Your task to perform on an android device: turn on notifications settings in the gmail app Image 0: 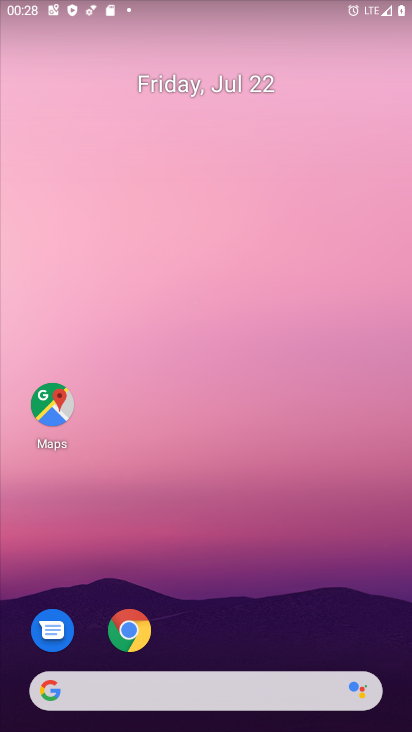
Step 0: drag from (217, 631) to (89, 3)
Your task to perform on an android device: turn on notifications settings in the gmail app Image 1: 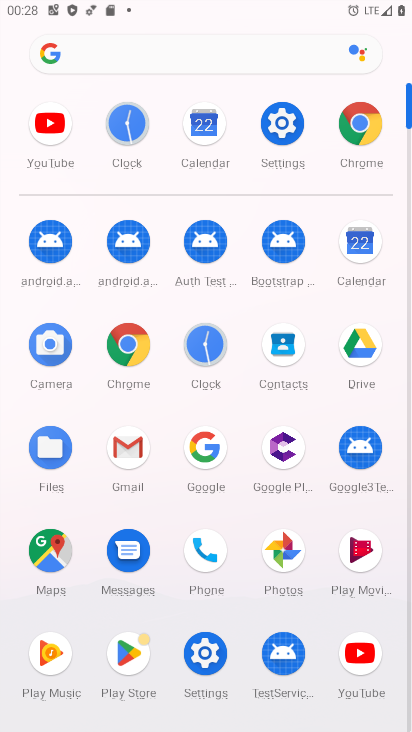
Step 1: click (125, 440)
Your task to perform on an android device: turn on notifications settings in the gmail app Image 2: 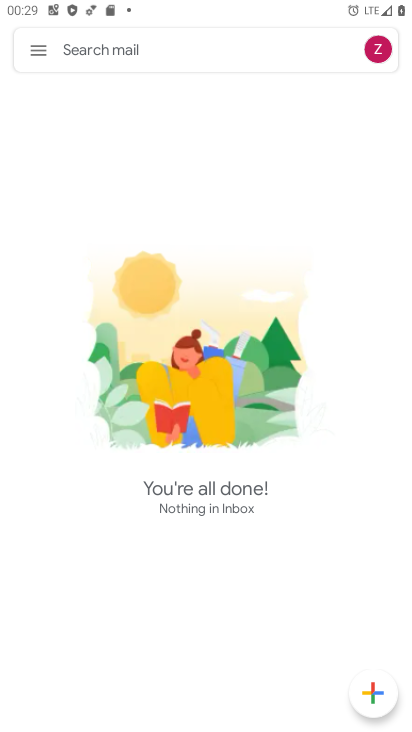
Step 2: click (190, 50)
Your task to perform on an android device: turn on notifications settings in the gmail app Image 3: 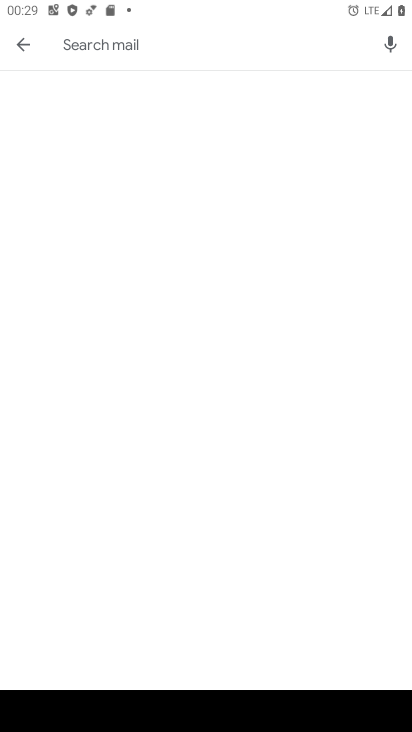
Step 3: click (25, 43)
Your task to perform on an android device: turn on notifications settings in the gmail app Image 4: 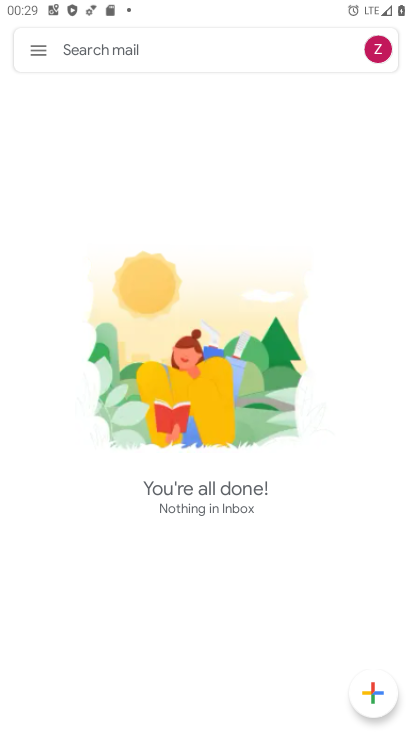
Step 4: click (25, 43)
Your task to perform on an android device: turn on notifications settings in the gmail app Image 5: 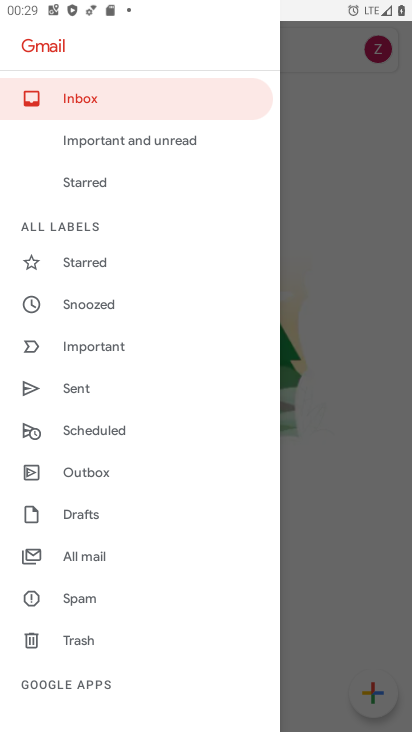
Step 5: drag from (100, 714) to (88, 375)
Your task to perform on an android device: turn on notifications settings in the gmail app Image 6: 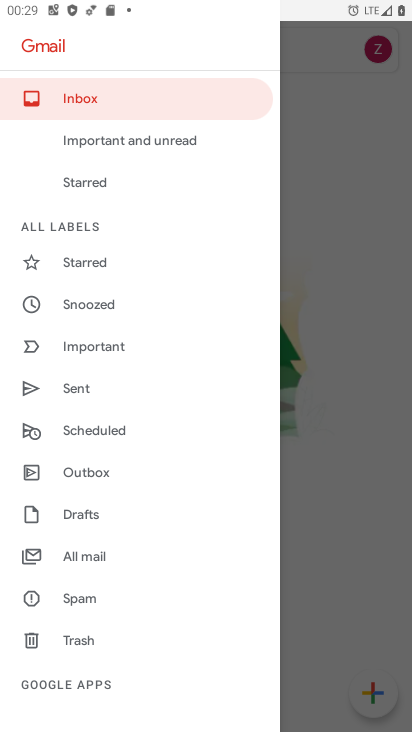
Step 6: drag from (182, 667) to (164, 388)
Your task to perform on an android device: turn on notifications settings in the gmail app Image 7: 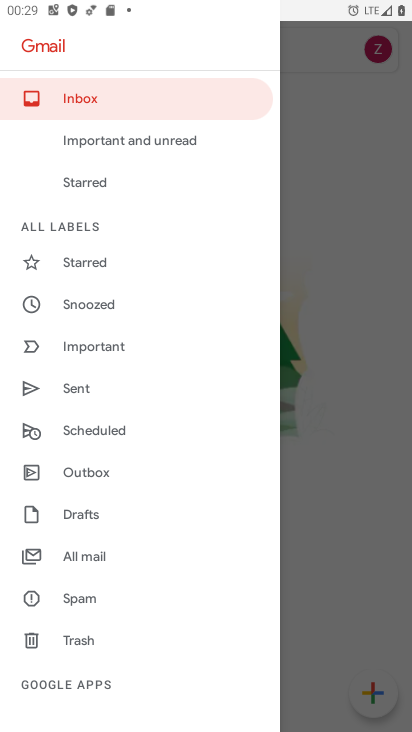
Step 7: drag from (83, 652) to (83, 309)
Your task to perform on an android device: turn on notifications settings in the gmail app Image 8: 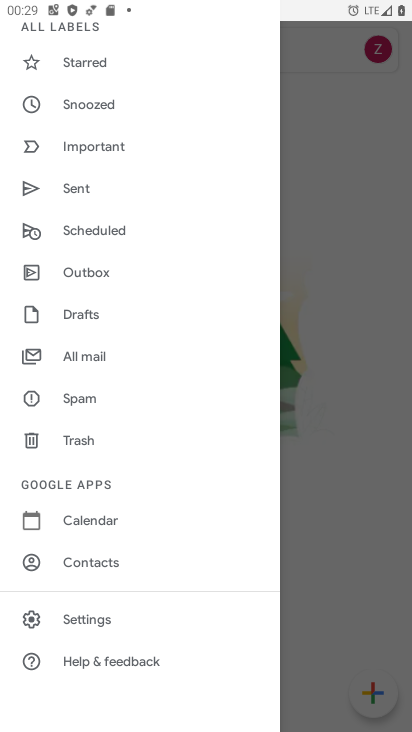
Step 8: click (97, 620)
Your task to perform on an android device: turn on notifications settings in the gmail app Image 9: 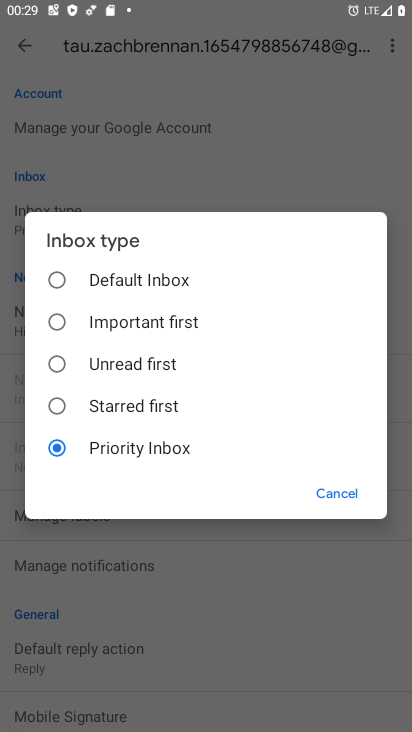
Step 9: click (332, 493)
Your task to perform on an android device: turn on notifications settings in the gmail app Image 10: 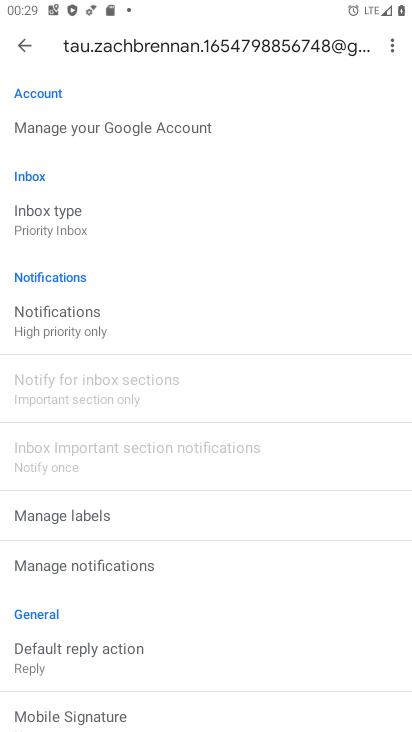
Step 10: click (154, 567)
Your task to perform on an android device: turn on notifications settings in the gmail app Image 11: 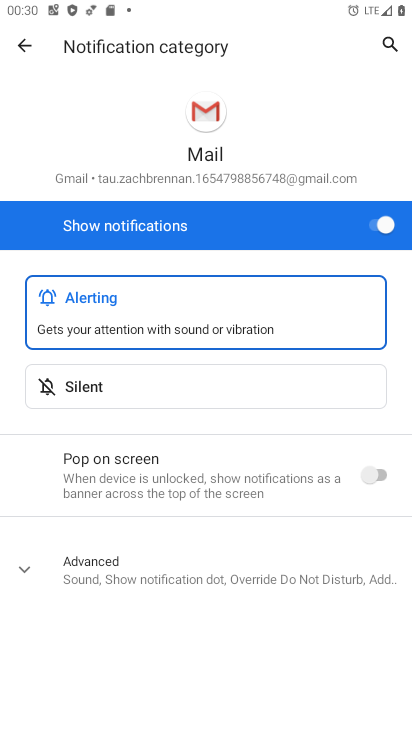
Step 11: task complete